Your task to perform on an android device: Show me popular videos on Youtube Image 0: 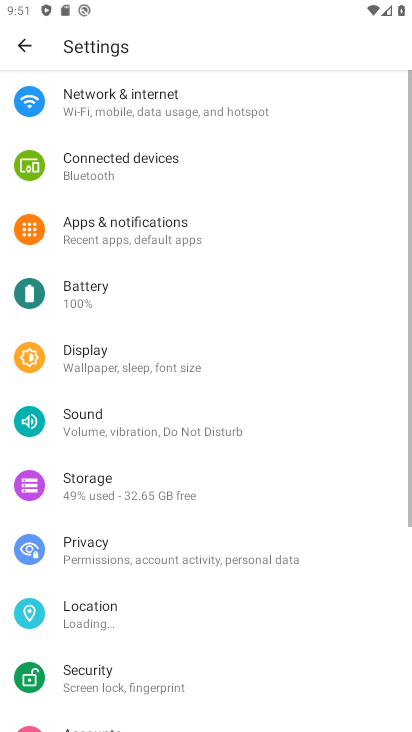
Step 0: press home button
Your task to perform on an android device: Show me popular videos on Youtube Image 1: 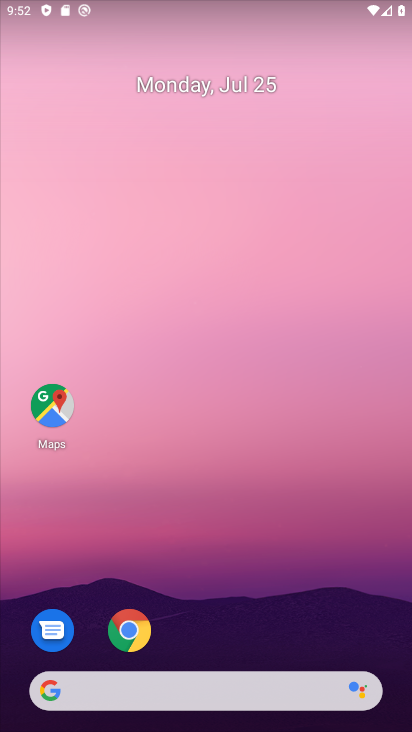
Step 1: drag from (206, 644) to (6, 532)
Your task to perform on an android device: Show me popular videos on Youtube Image 2: 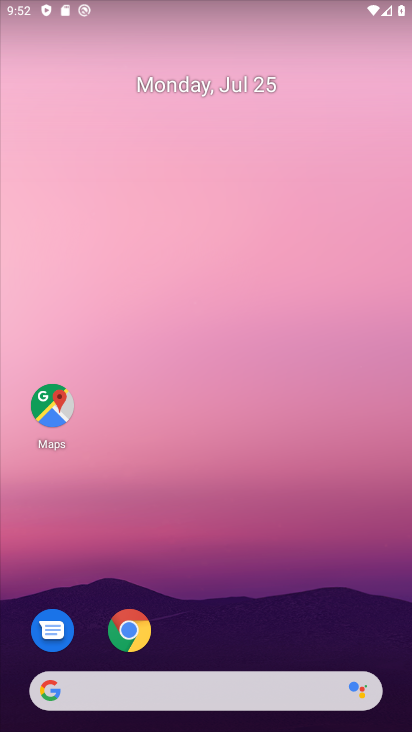
Step 2: drag from (203, 657) to (291, 13)
Your task to perform on an android device: Show me popular videos on Youtube Image 3: 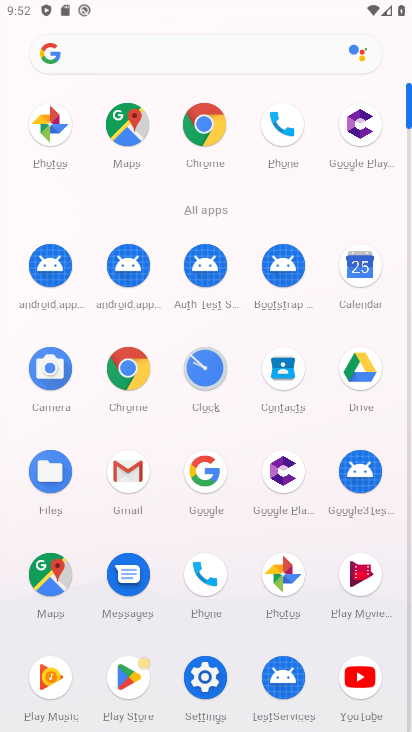
Step 3: click (373, 682)
Your task to perform on an android device: Show me popular videos on Youtube Image 4: 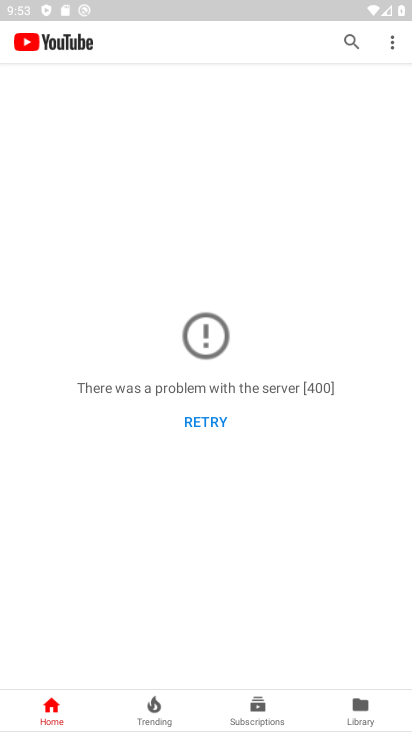
Step 4: task complete